Your task to perform on an android device: Go to Google Image 0: 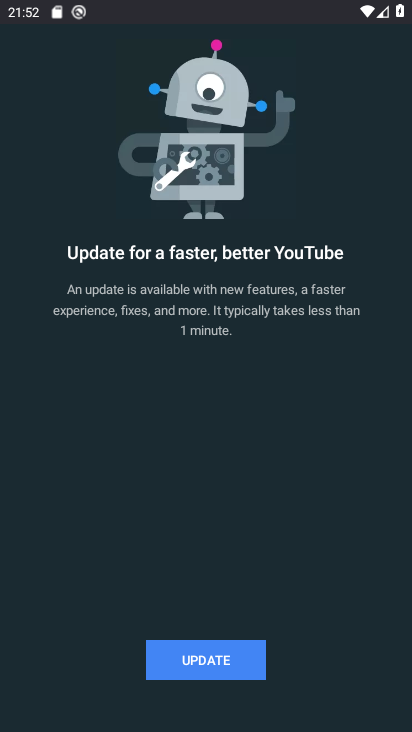
Step 0: press home button
Your task to perform on an android device: Go to Google Image 1: 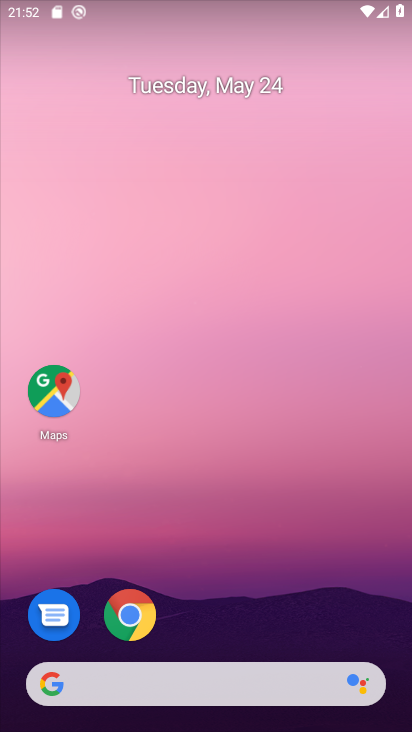
Step 1: click (220, 605)
Your task to perform on an android device: Go to Google Image 2: 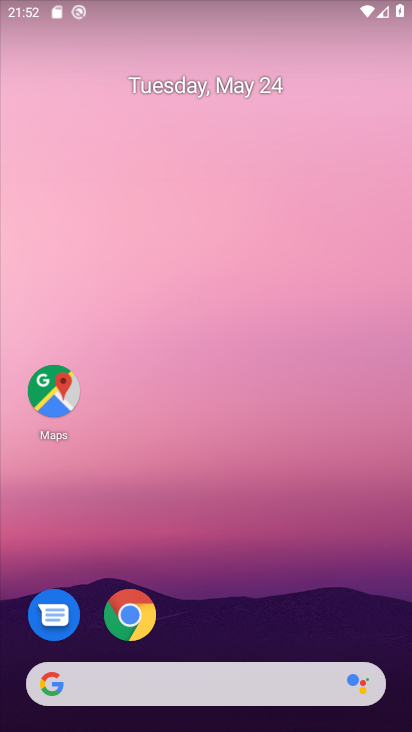
Step 2: drag from (226, 543) to (252, 303)
Your task to perform on an android device: Go to Google Image 3: 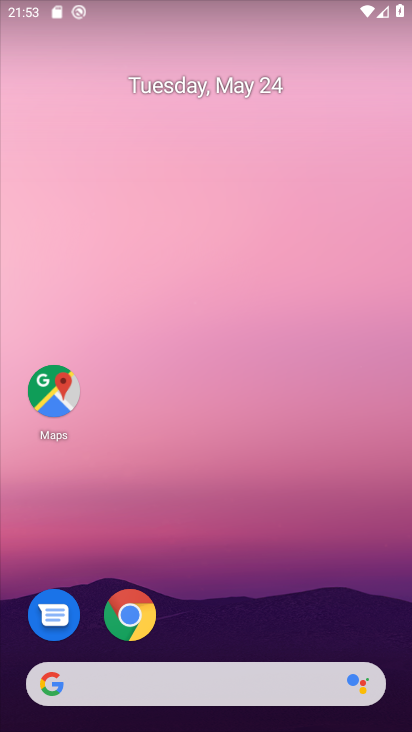
Step 3: drag from (272, 607) to (259, 215)
Your task to perform on an android device: Go to Google Image 4: 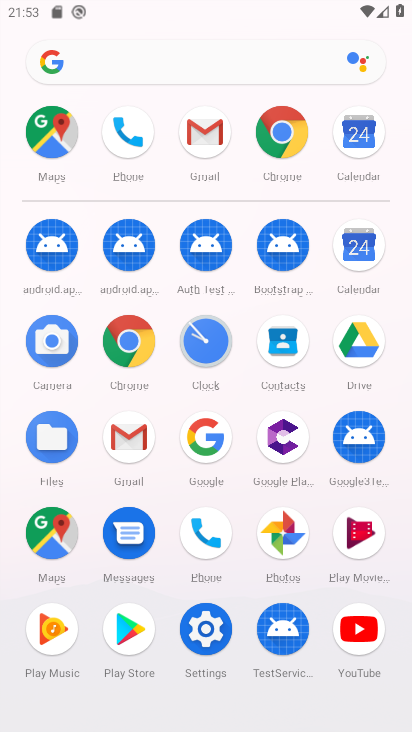
Step 4: click (195, 425)
Your task to perform on an android device: Go to Google Image 5: 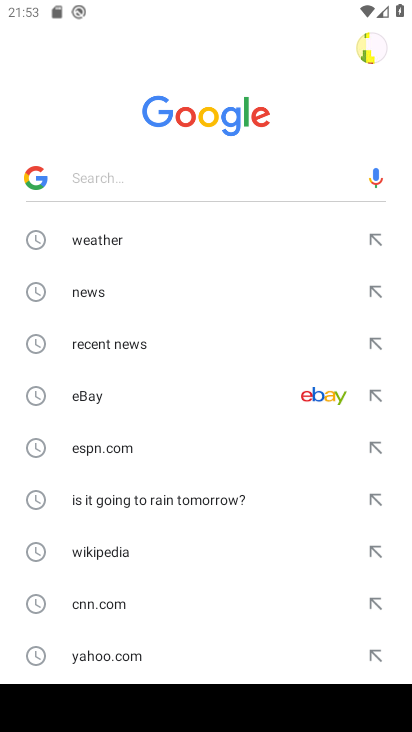
Step 5: task complete